Your task to perform on an android device: Open Chrome and go to settings Image 0: 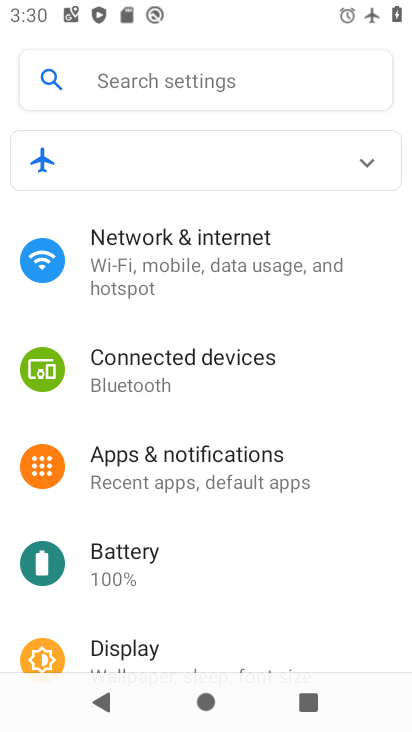
Step 0: press home button
Your task to perform on an android device: Open Chrome and go to settings Image 1: 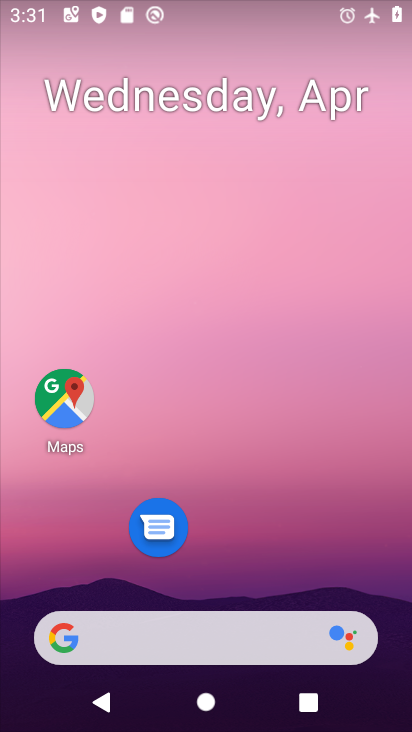
Step 1: drag from (230, 430) to (253, 47)
Your task to perform on an android device: Open Chrome and go to settings Image 2: 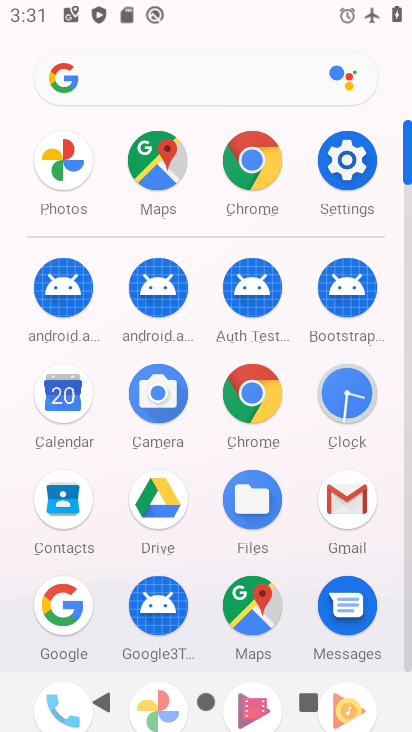
Step 2: click (254, 153)
Your task to perform on an android device: Open Chrome and go to settings Image 3: 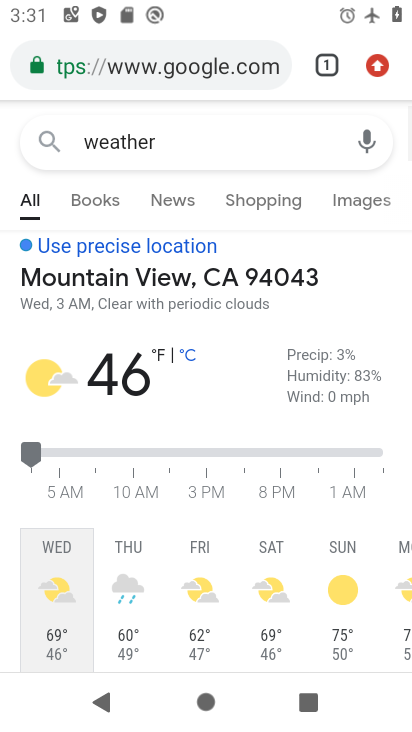
Step 3: click (385, 60)
Your task to perform on an android device: Open Chrome and go to settings Image 4: 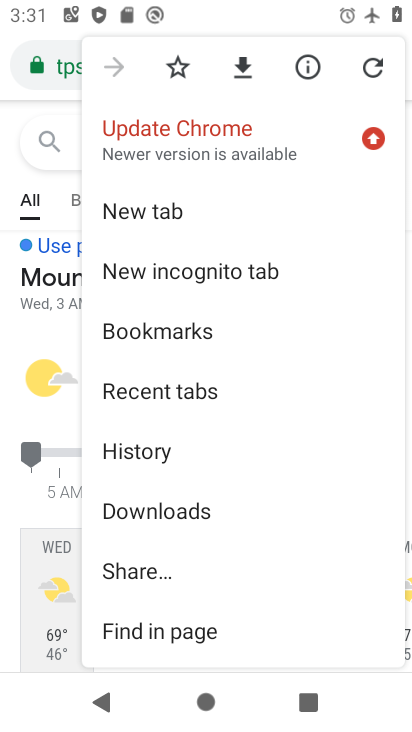
Step 4: drag from (157, 502) to (186, 253)
Your task to perform on an android device: Open Chrome and go to settings Image 5: 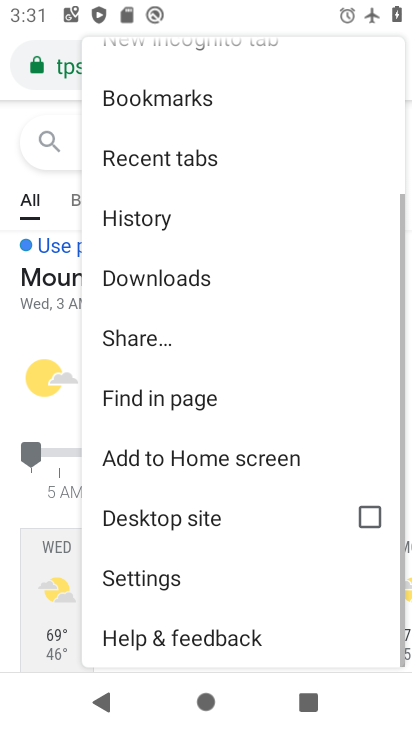
Step 5: click (198, 568)
Your task to perform on an android device: Open Chrome and go to settings Image 6: 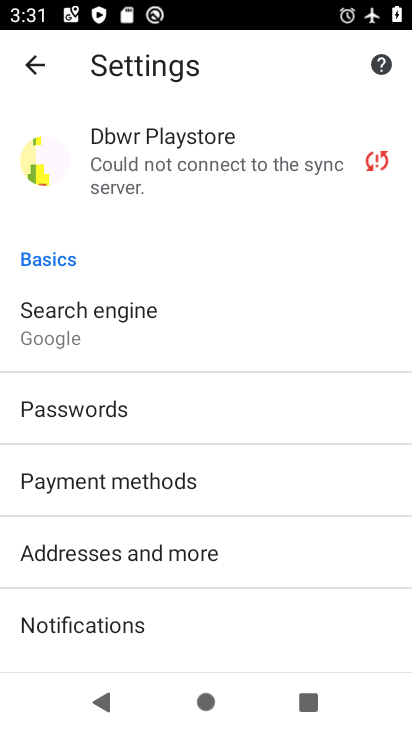
Step 6: task complete